Your task to perform on an android device: Open network settings Image 0: 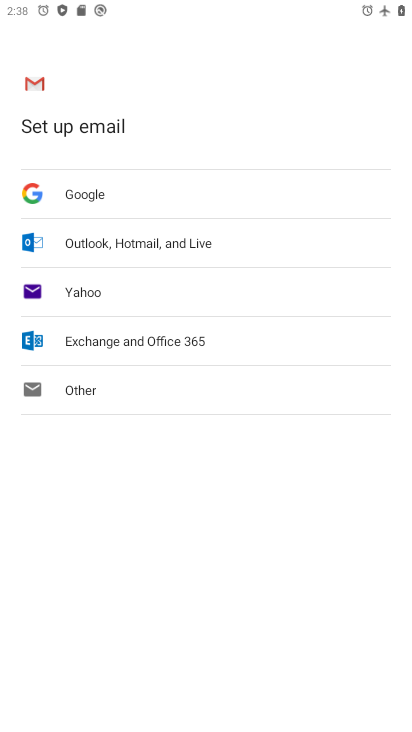
Step 0: press home button
Your task to perform on an android device: Open network settings Image 1: 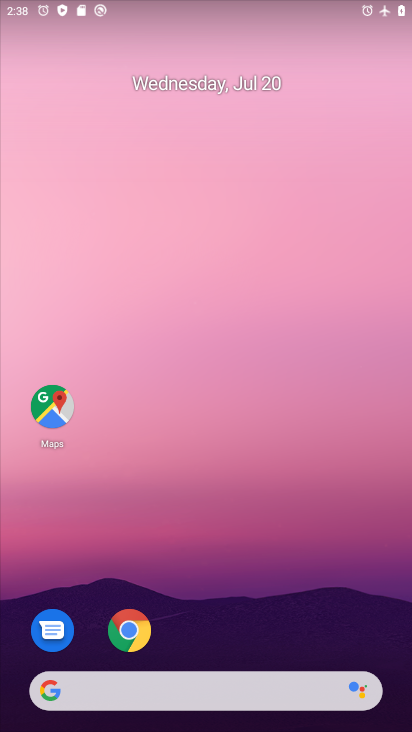
Step 1: drag from (33, 501) to (339, 120)
Your task to perform on an android device: Open network settings Image 2: 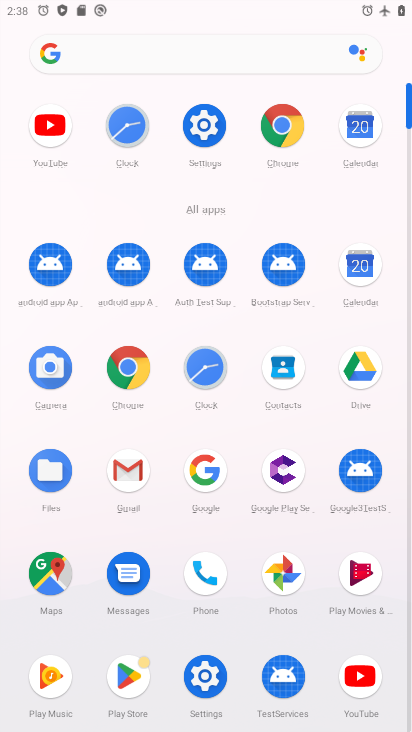
Step 2: click (200, 131)
Your task to perform on an android device: Open network settings Image 3: 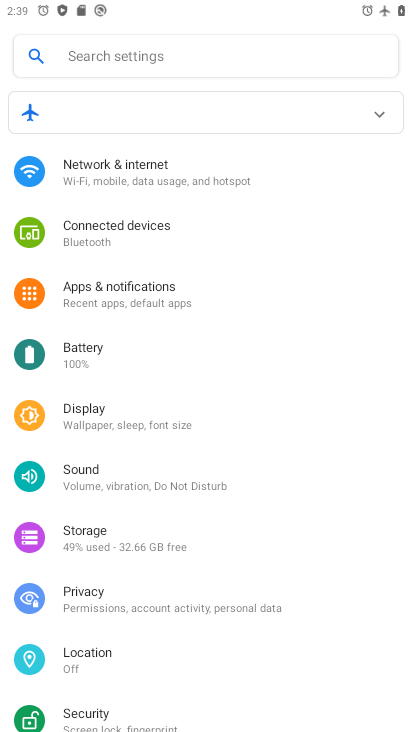
Step 3: click (185, 172)
Your task to perform on an android device: Open network settings Image 4: 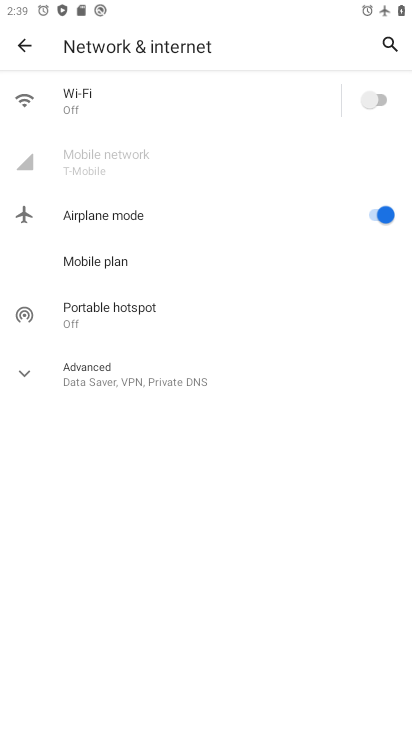
Step 4: task complete